Your task to perform on an android device: Go to Amazon Image 0: 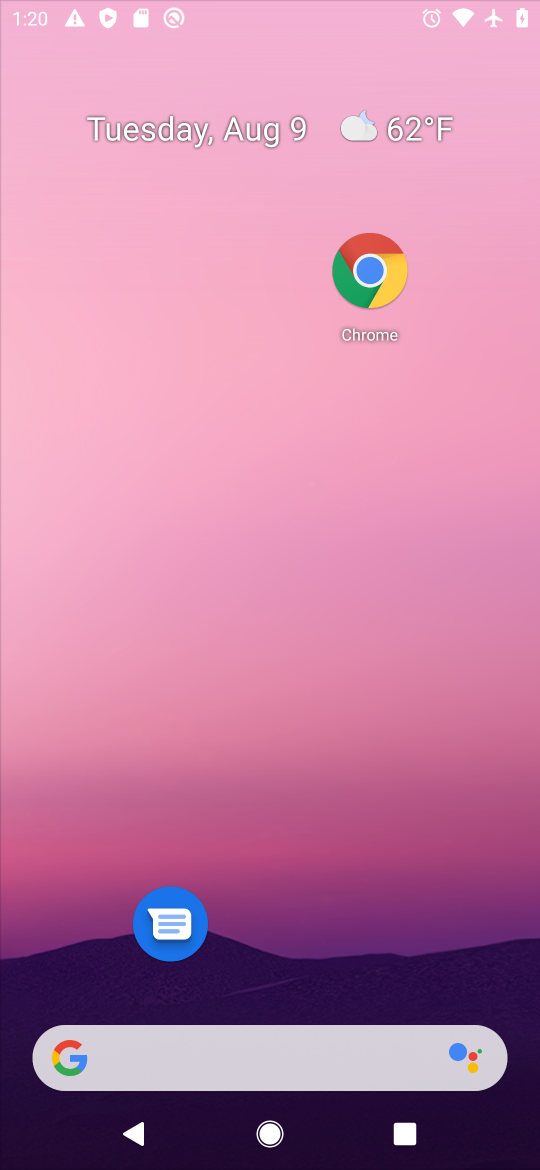
Step 0: press home button
Your task to perform on an android device: Go to Amazon Image 1: 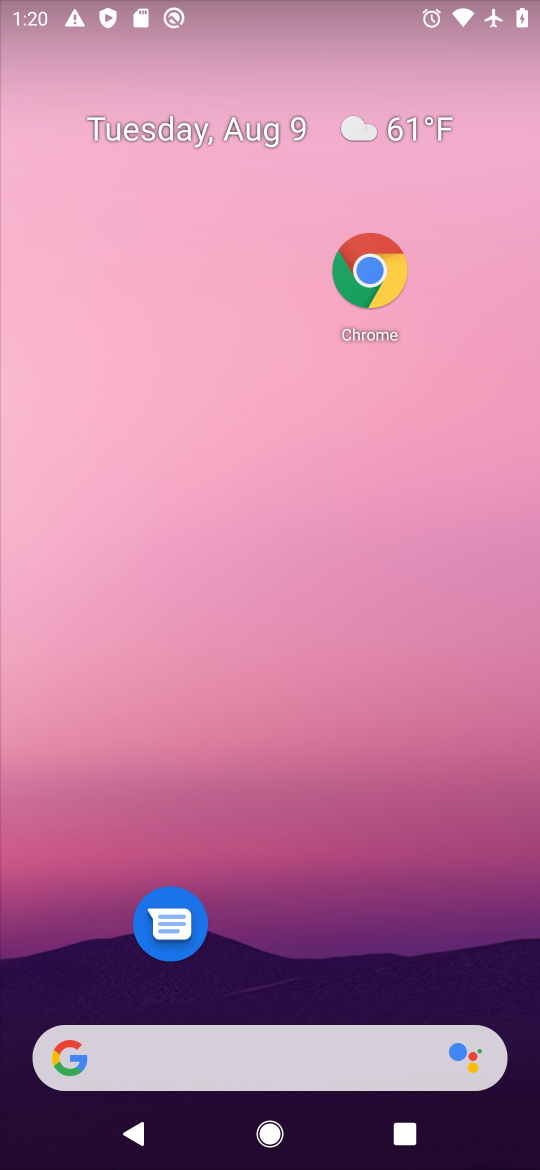
Step 1: click (351, 265)
Your task to perform on an android device: Go to Amazon Image 2: 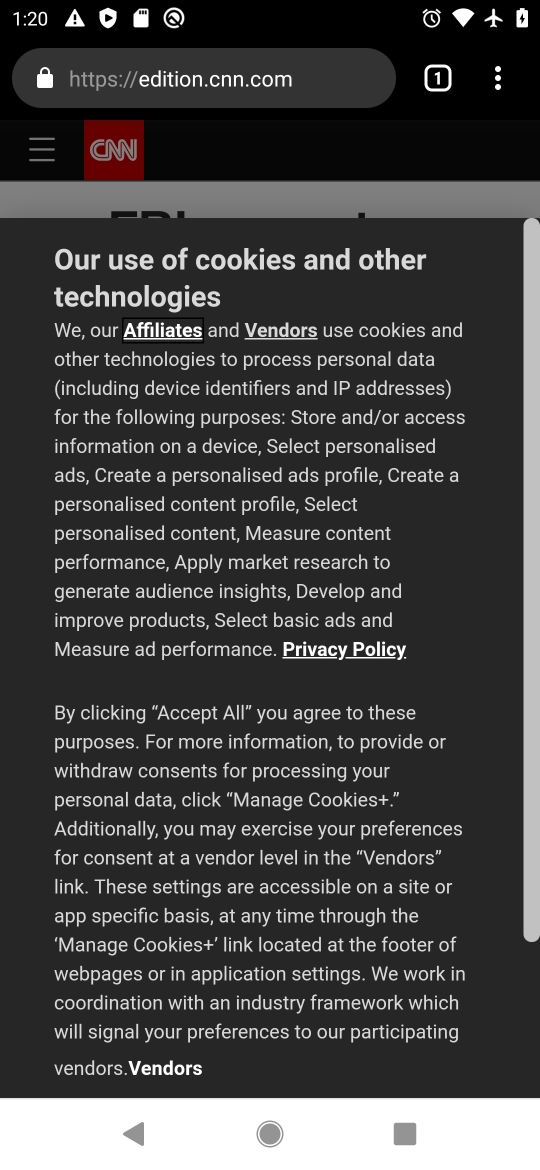
Step 2: task complete